Your task to perform on an android device: open a new tab in the chrome app Image 0: 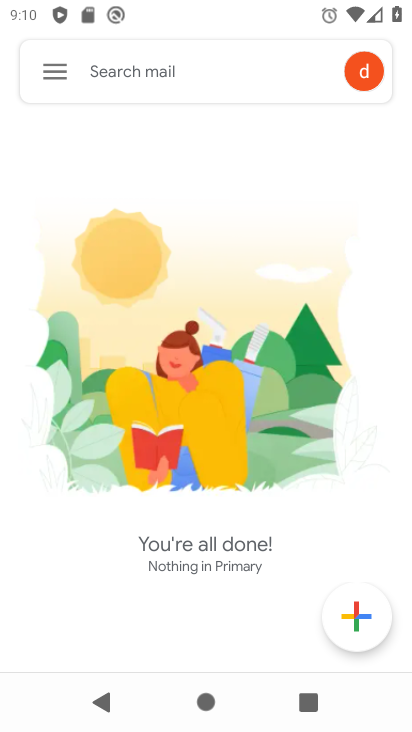
Step 0: press home button
Your task to perform on an android device: open a new tab in the chrome app Image 1: 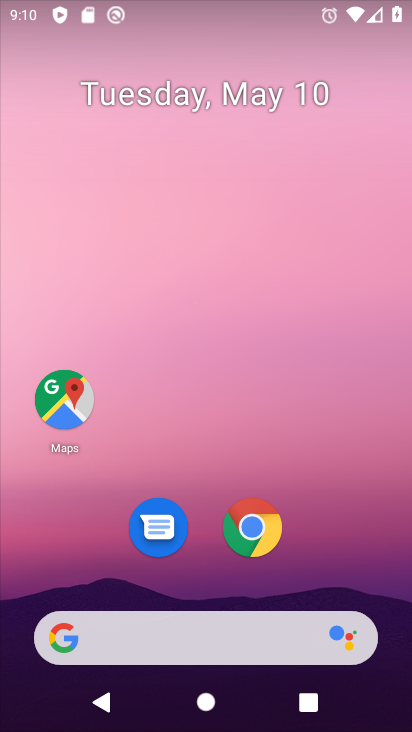
Step 1: click (244, 514)
Your task to perform on an android device: open a new tab in the chrome app Image 2: 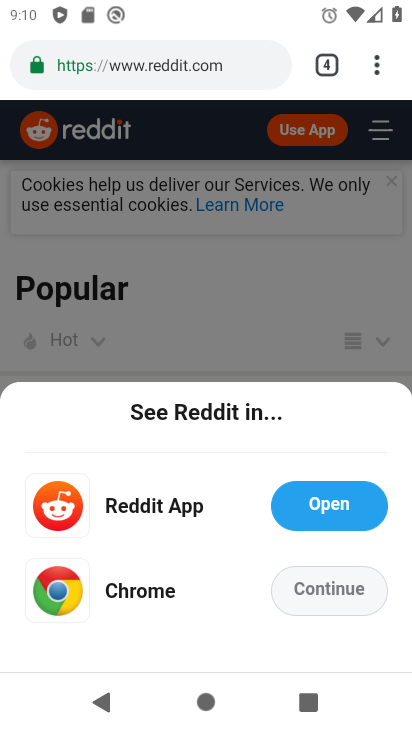
Step 2: click (318, 66)
Your task to perform on an android device: open a new tab in the chrome app Image 3: 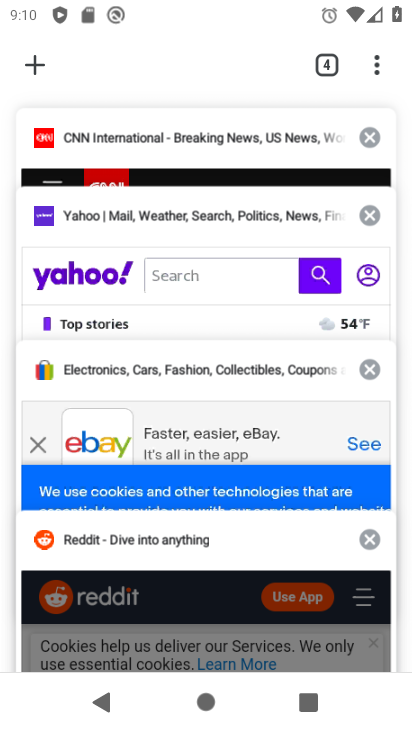
Step 3: click (32, 65)
Your task to perform on an android device: open a new tab in the chrome app Image 4: 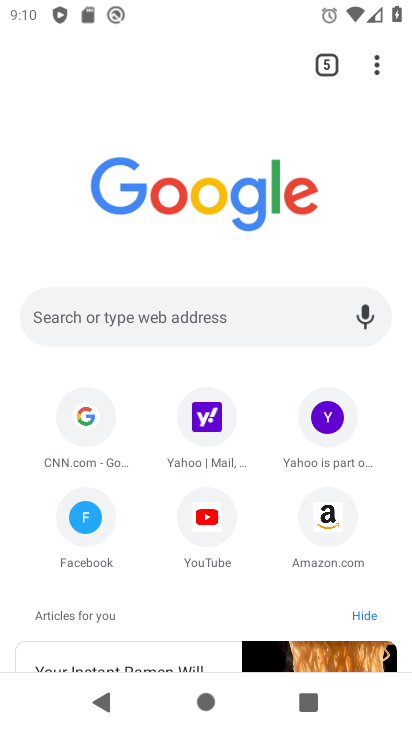
Step 4: task complete